Your task to perform on an android device: see tabs open on other devices in the chrome app Image 0: 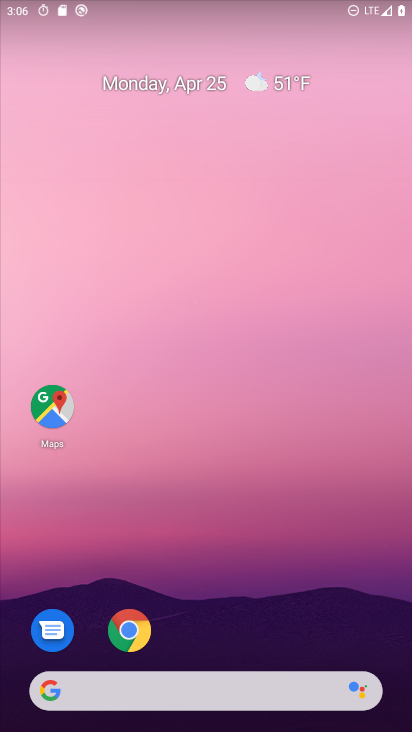
Step 0: drag from (309, 331) to (326, 294)
Your task to perform on an android device: see tabs open on other devices in the chrome app Image 1: 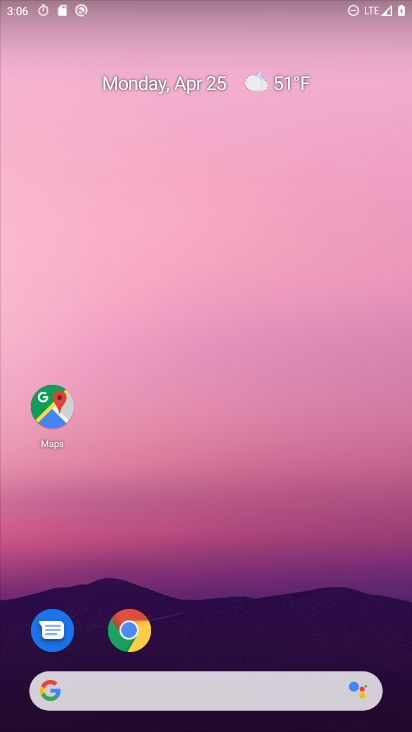
Step 1: drag from (204, 550) to (236, 15)
Your task to perform on an android device: see tabs open on other devices in the chrome app Image 2: 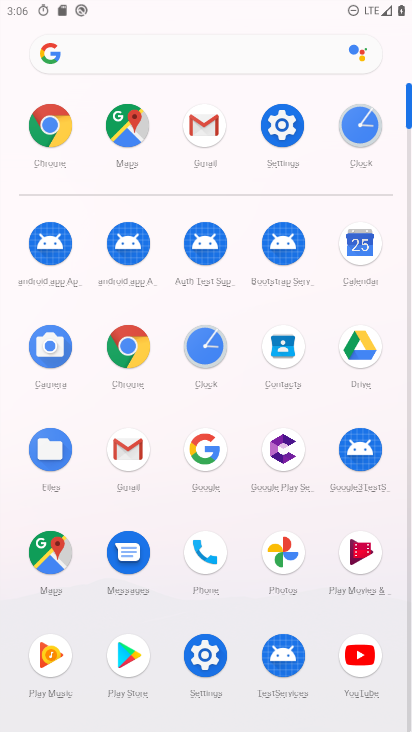
Step 2: click (129, 313)
Your task to perform on an android device: see tabs open on other devices in the chrome app Image 3: 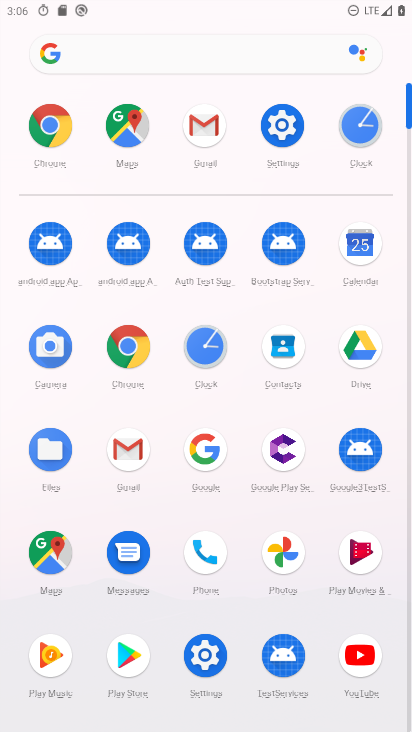
Step 3: click (134, 338)
Your task to perform on an android device: see tabs open on other devices in the chrome app Image 4: 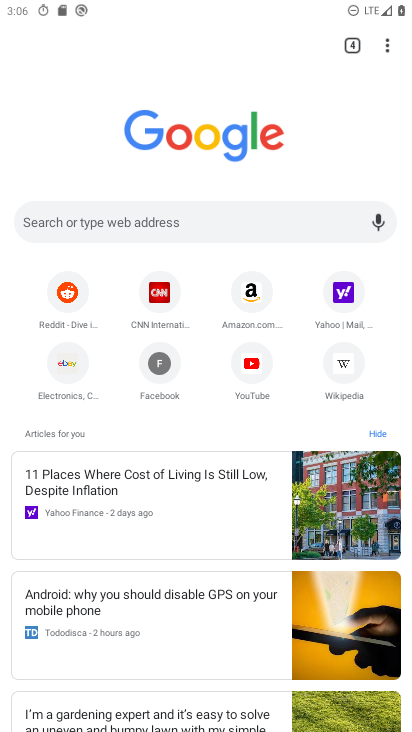
Step 4: drag from (387, 45) to (249, 426)
Your task to perform on an android device: see tabs open on other devices in the chrome app Image 5: 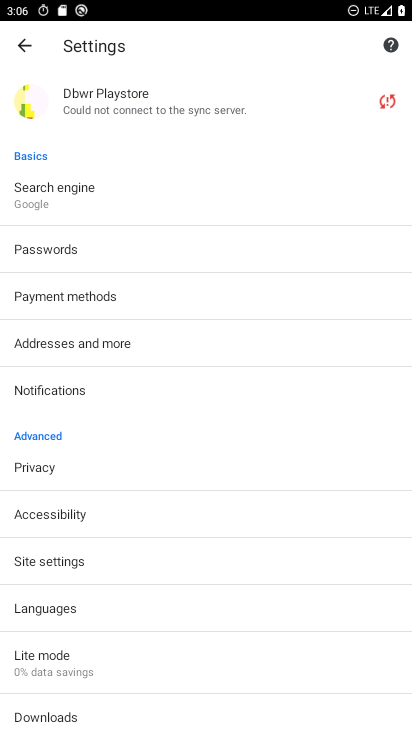
Step 5: click (23, 46)
Your task to perform on an android device: see tabs open on other devices in the chrome app Image 6: 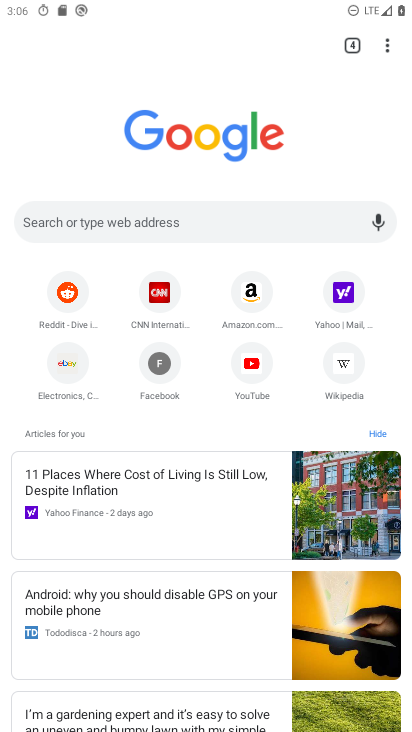
Step 6: drag from (383, 45) to (242, 266)
Your task to perform on an android device: see tabs open on other devices in the chrome app Image 7: 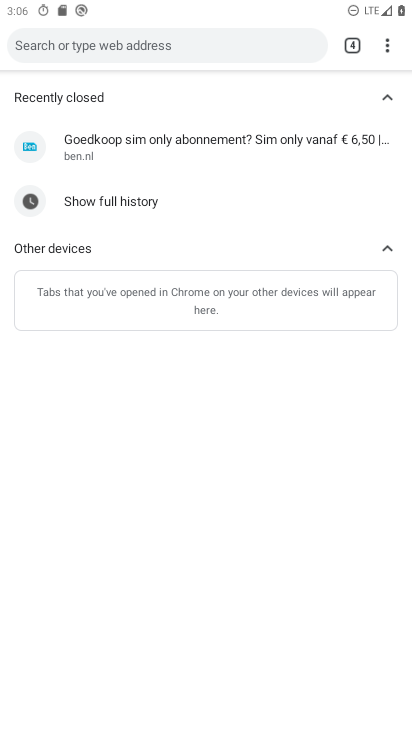
Step 7: drag from (153, 383) to (203, 151)
Your task to perform on an android device: see tabs open on other devices in the chrome app Image 8: 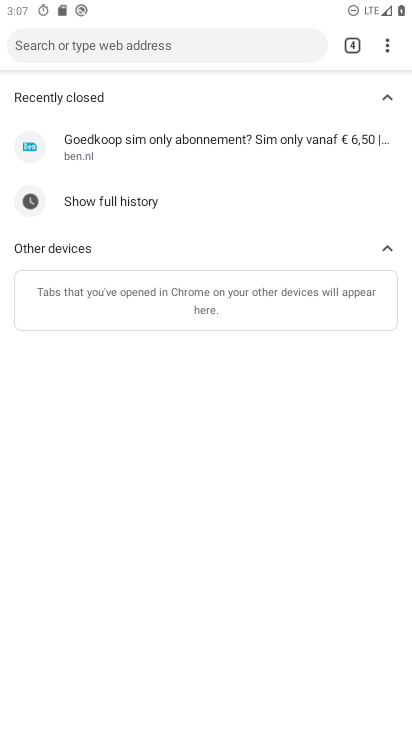
Step 8: drag from (263, 452) to (342, 172)
Your task to perform on an android device: see tabs open on other devices in the chrome app Image 9: 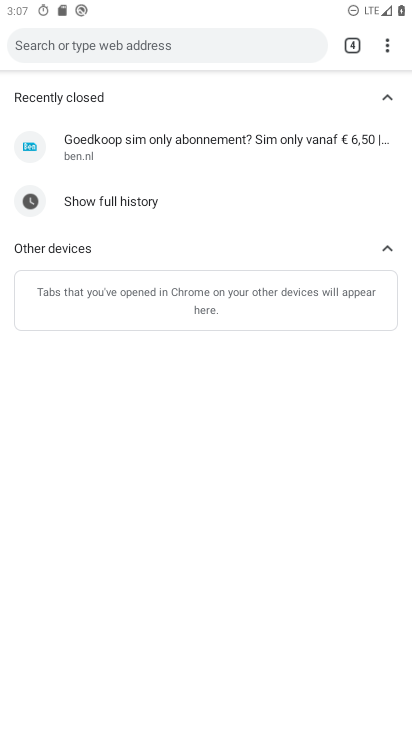
Step 9: click (132, 204)
Your task to perform on an android device: see tabs open on other devices in the chrome app Image 10: 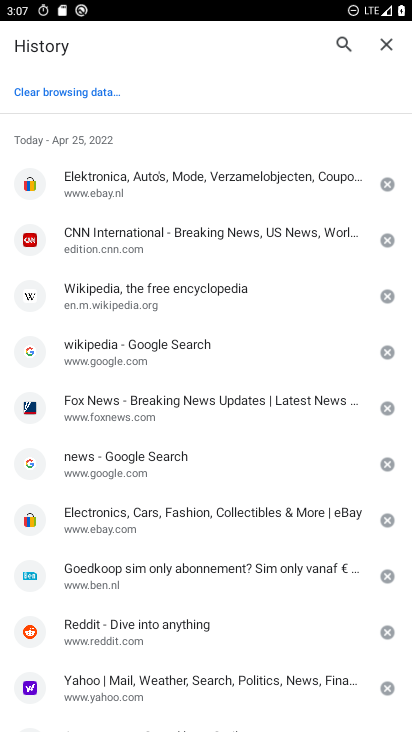
Step 10: task complete